Your task to perform on an android device: snooze an email in the gmail app Image 0: 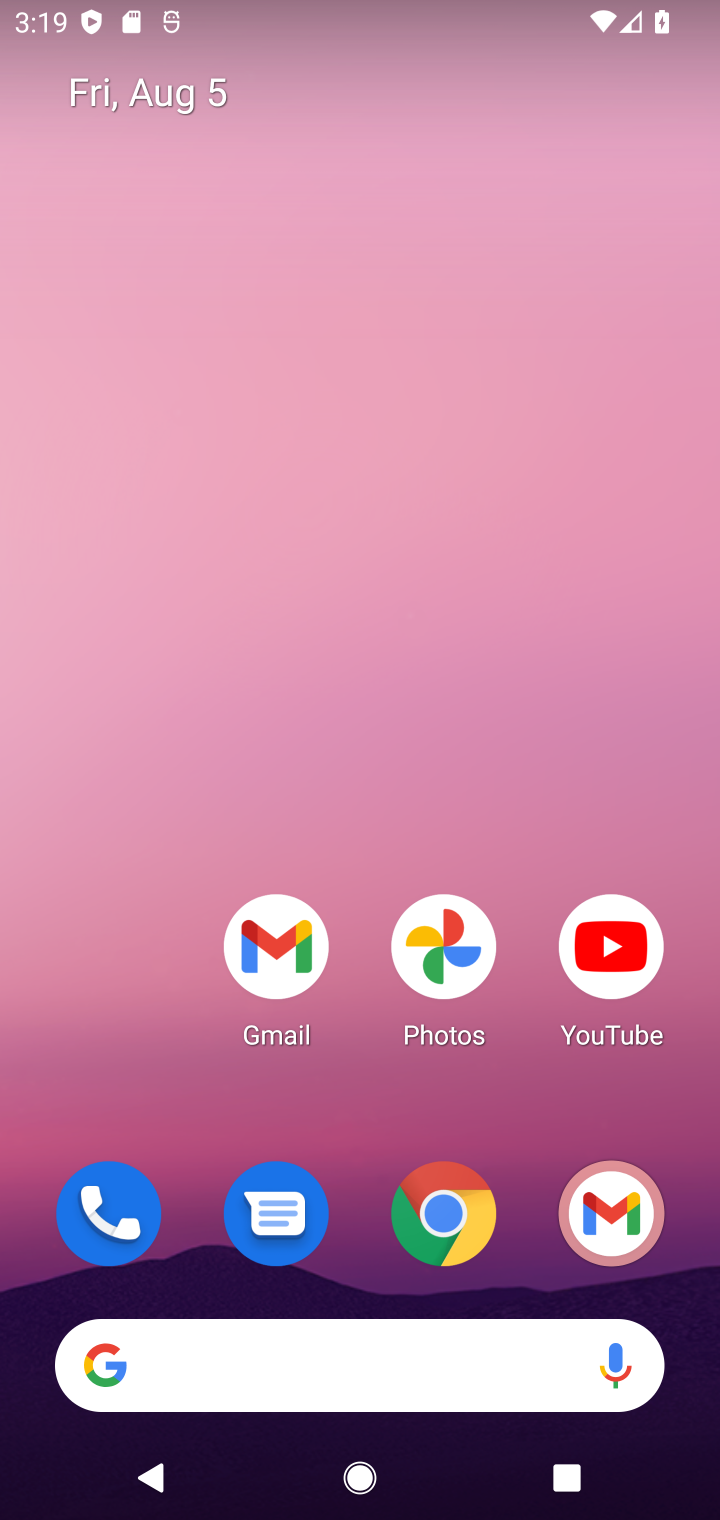
Step 0: click (259, 952)
Your task to perform on an android device: snooze an email in the gmail app Image 1: 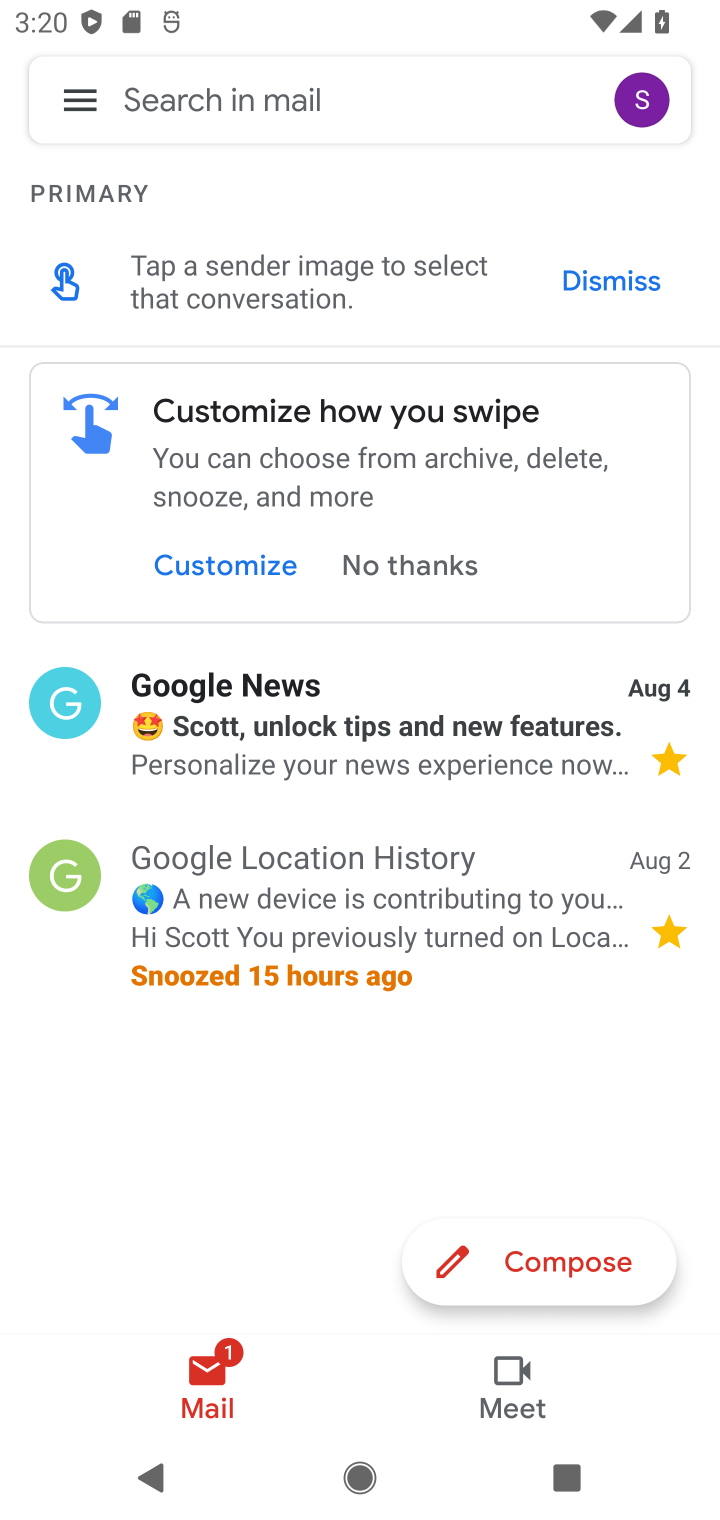
Step 1: click (332, 731)
Your task to perform on an android device: snooze an email in the gmail app Image 2: 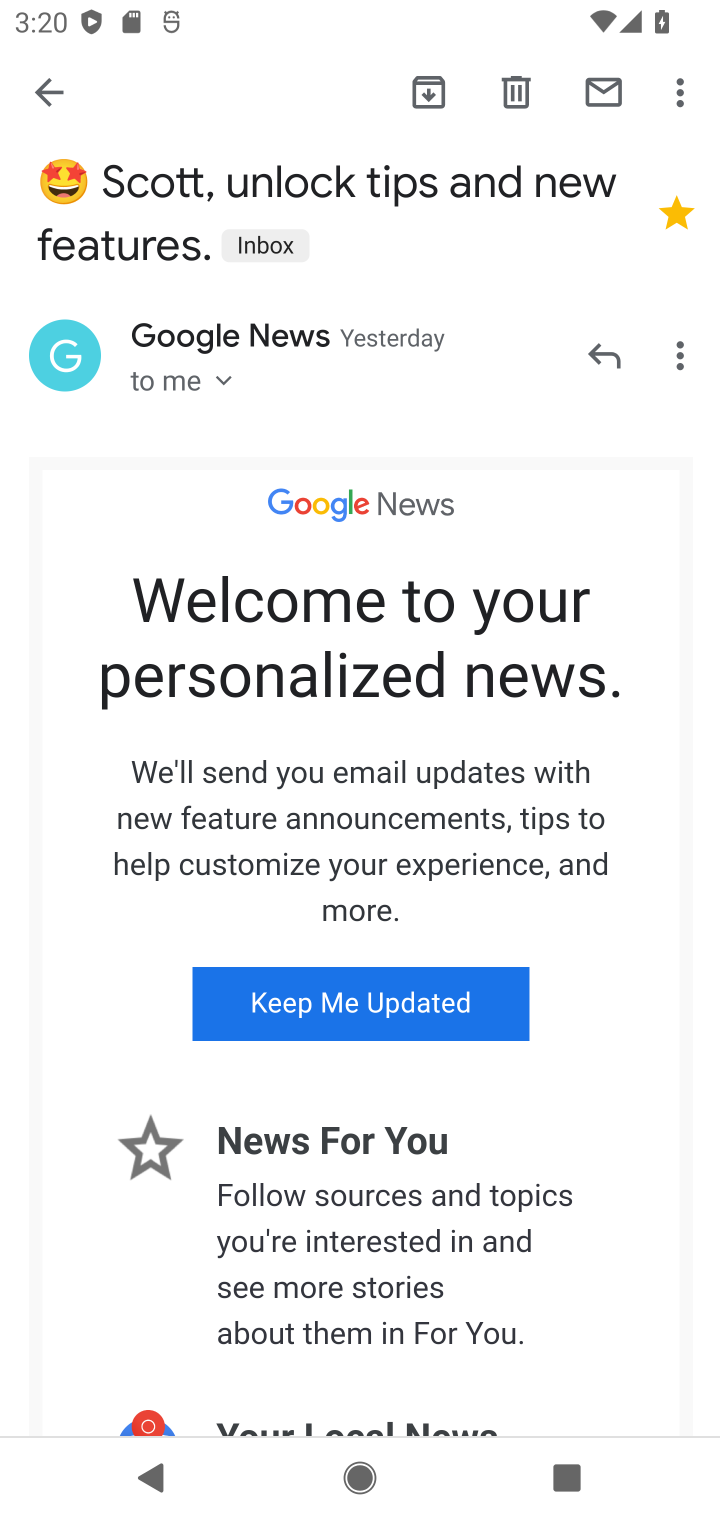
Step 2: click (678, 94)
Your task to perform on an android device: snooze an email in the gmail app Image 3: 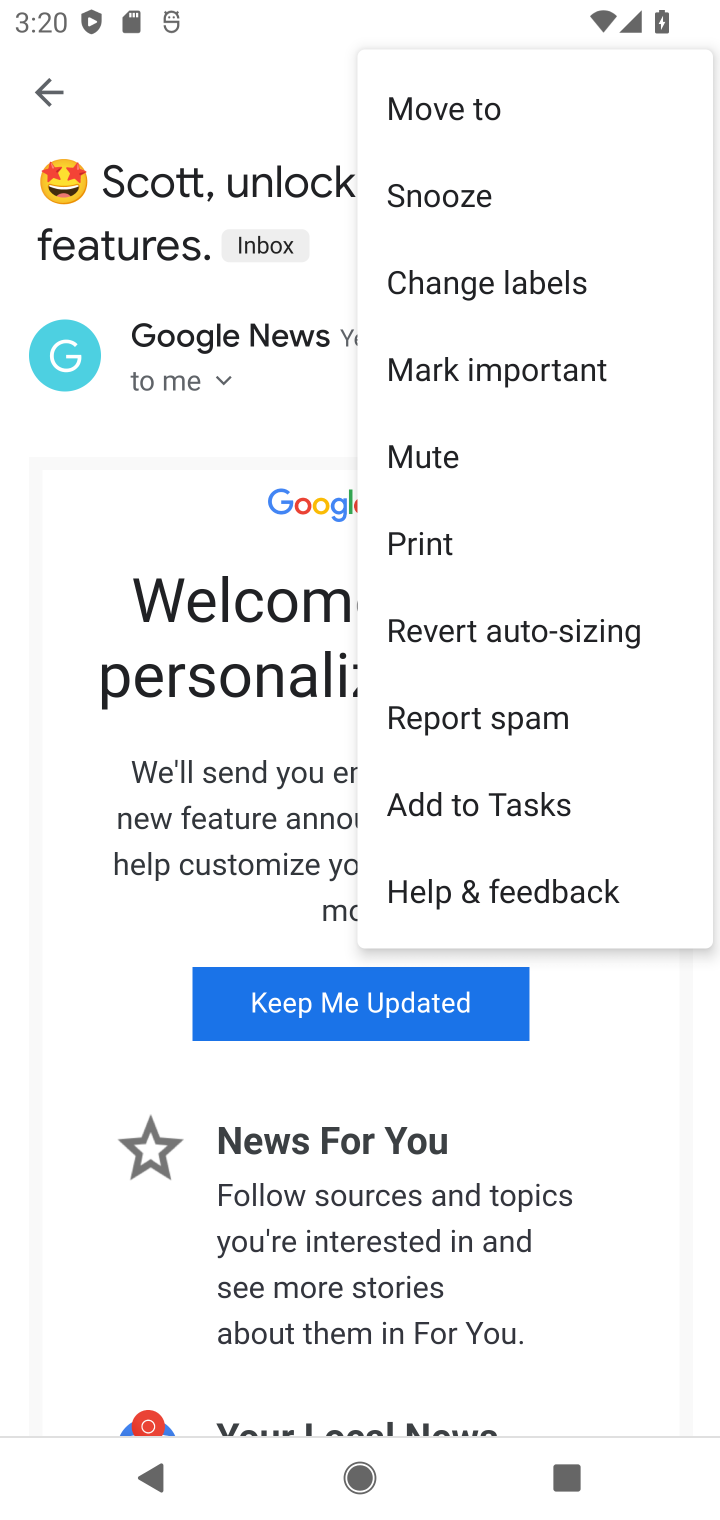
Step 3: click (562, 187)
Your task to perform on an android device: snooze an email in the gmail app Image 4: 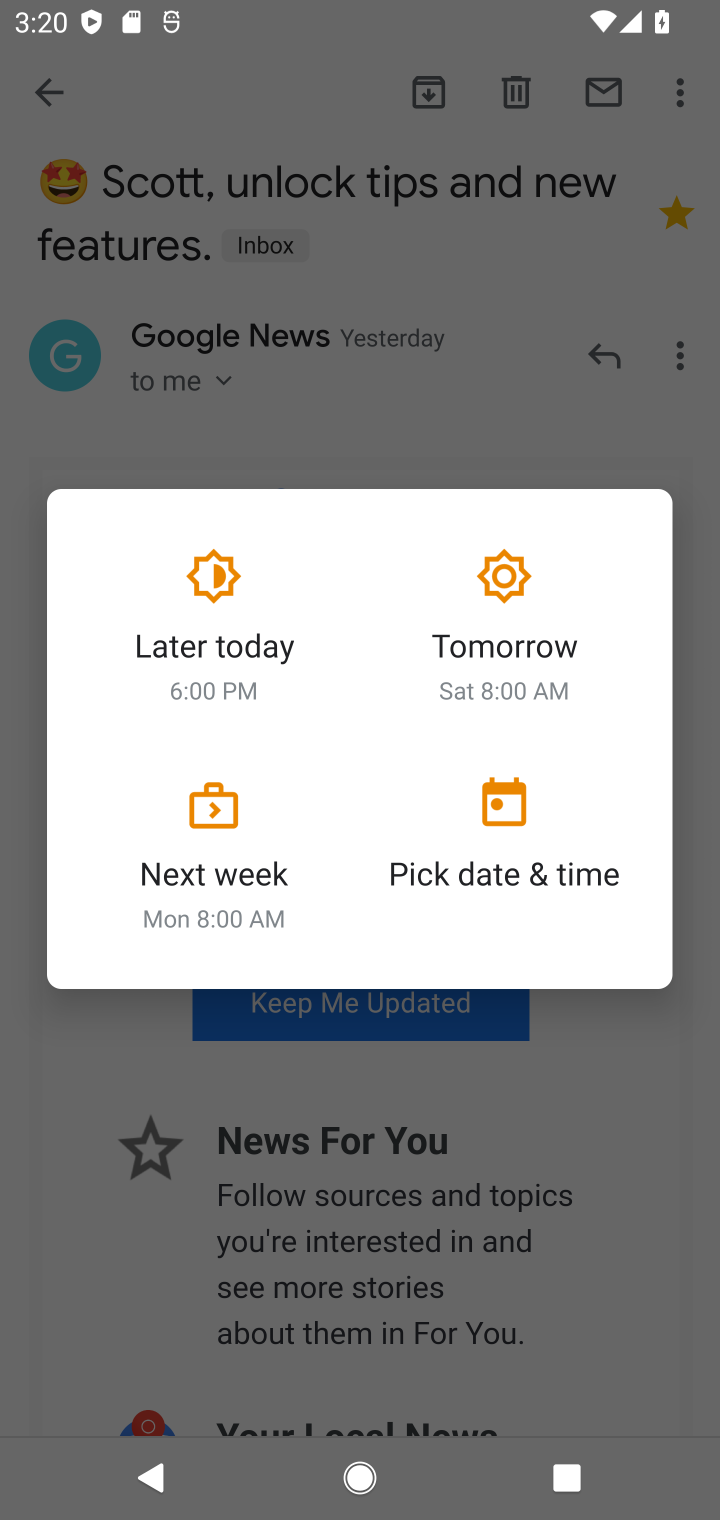
Step 4: click (521, 623)
Your task to perform on an android device: snooze an email in the gmail app Image 5: 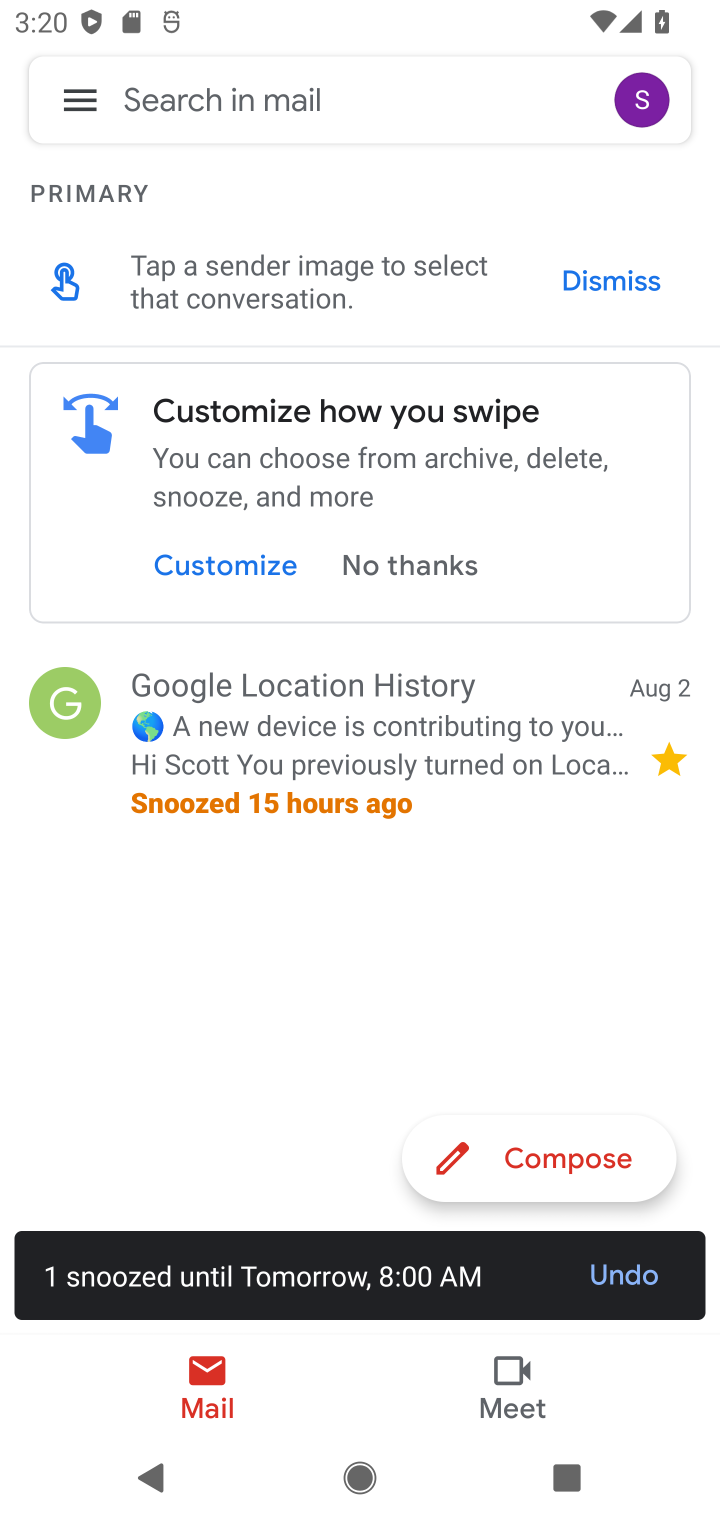
Step 5: task complete